Your task to perform on an android device: change the clock style Image 0: 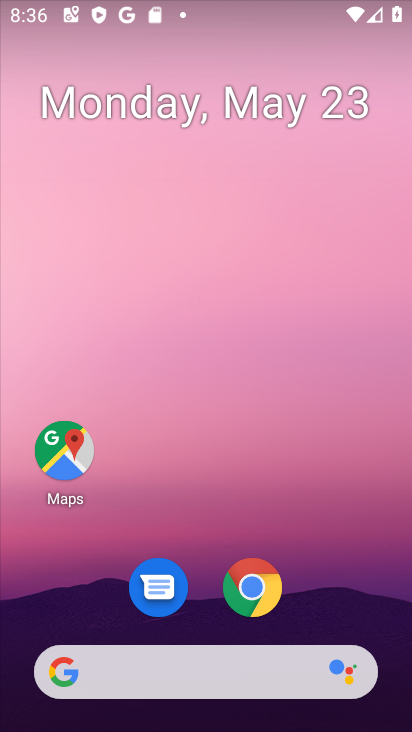
Step 0: drag from (172, 616) to (279, 61)
Your task to perform on an android device: change the clock style Image 1: 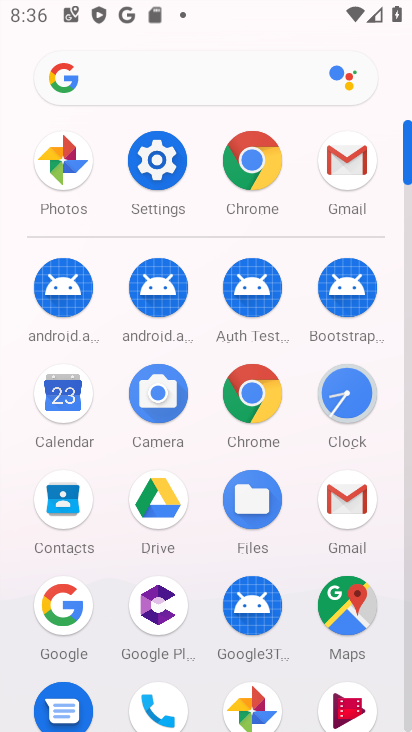
Step 1: click (349, 406)
Your task to perform on an android device: change the clock style Image 2: 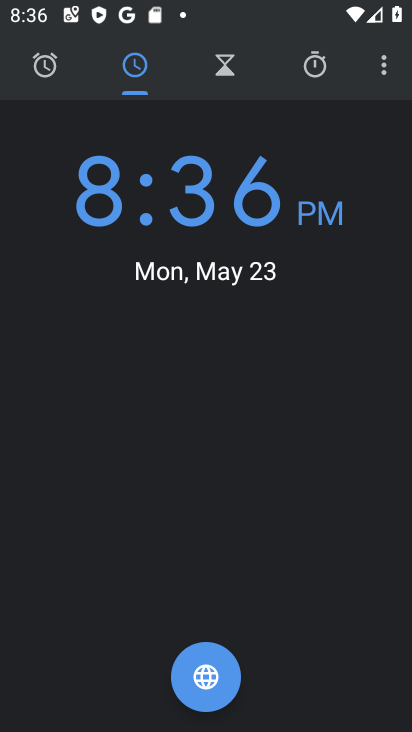
Step 2: click (383, 54)
Your task to perform on an android device: change the clock style Image 3: 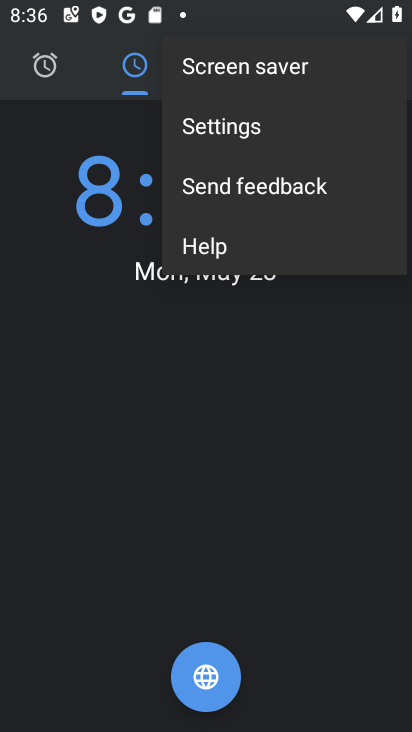
Step 3: click (244, 123)
Your task to perform on an android device: change the clock style Image 4: 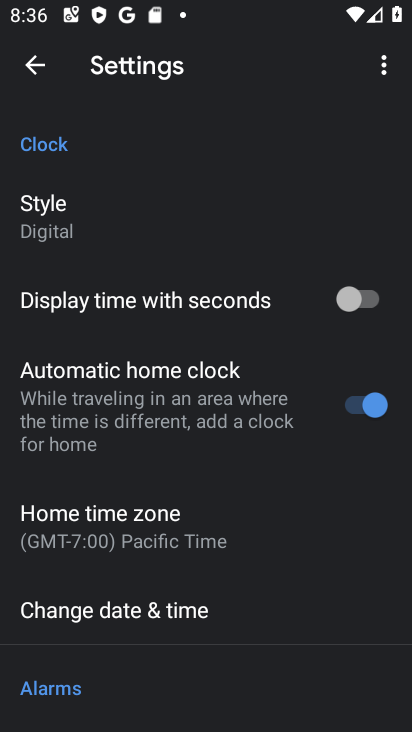
Step 4: click (79, 215)
Your task to perform on an android device: change the clock style Image 5: 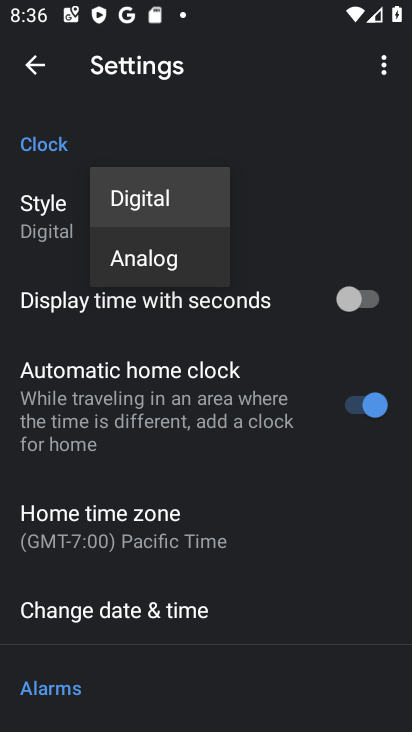
Step 5: click (122, 258)
Your task to perform on an android device: change the clock style Image 6: 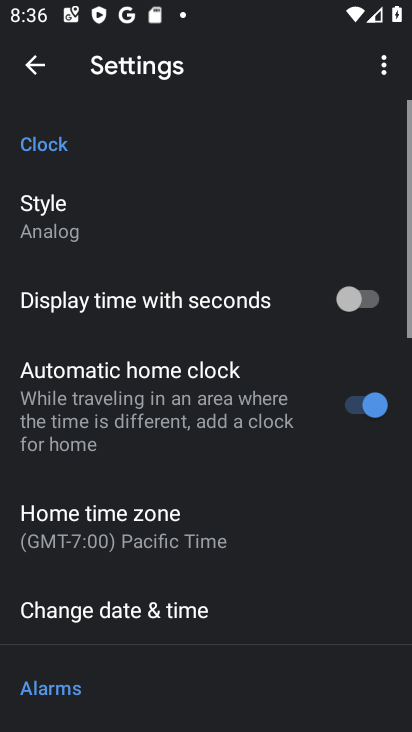
Step 6: task complete